Your task to perform on an android device: change timer sound Image 0: 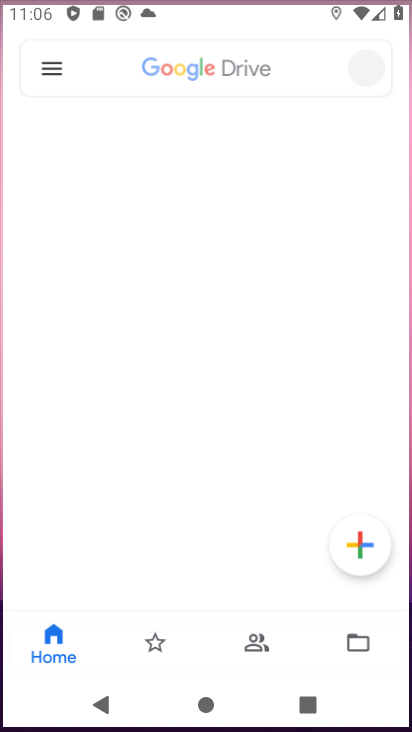
Step 0: drag from (204, 611) to (262, 28)
Your task to perform on an android device: change timer sound Image 1: 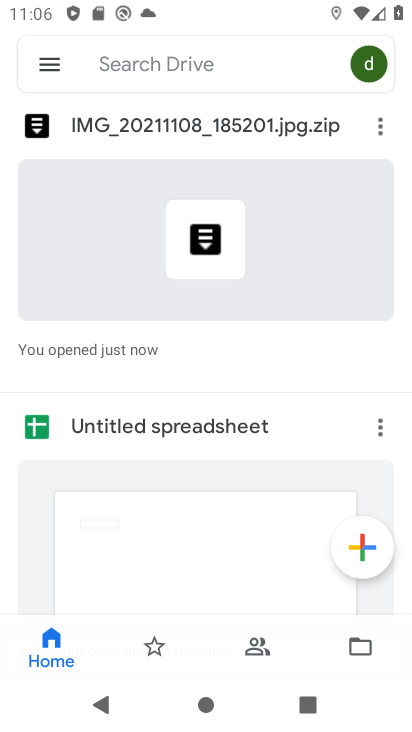
Step 1: press home button
Your task to perform on an android device: change timer sound Image 2: 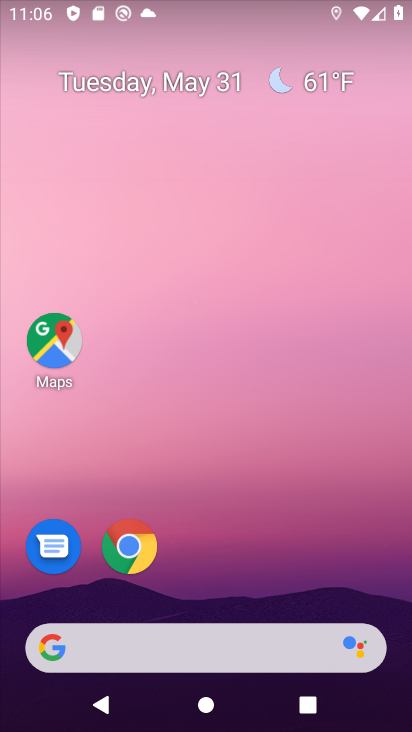
Step 2: drag from (197, 619) to (206, 0)
Your task to perform on an android device: change timer sound Image 3: 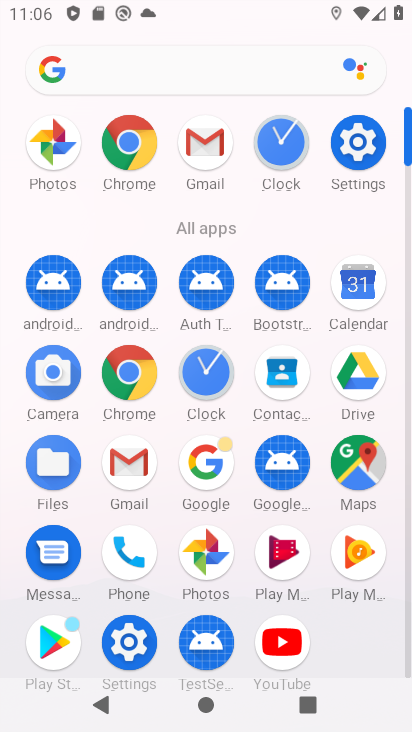
Step 3: click (209, 375)
Your task to perform on an android device: change timer sound Image 4: 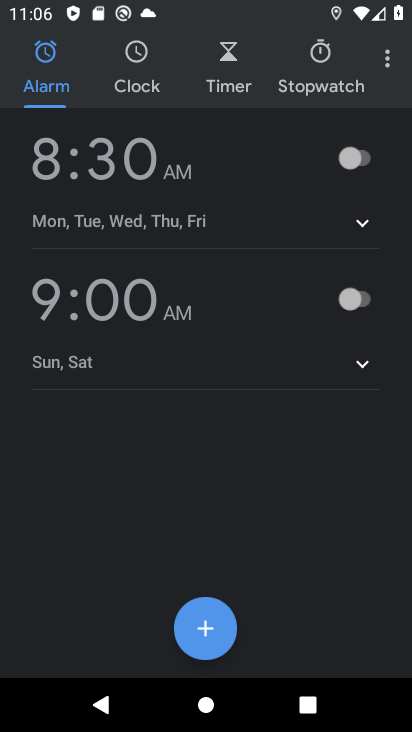
Step 4: click (391, 63)
Your task to perform on an android device: change timer sound Image 5: 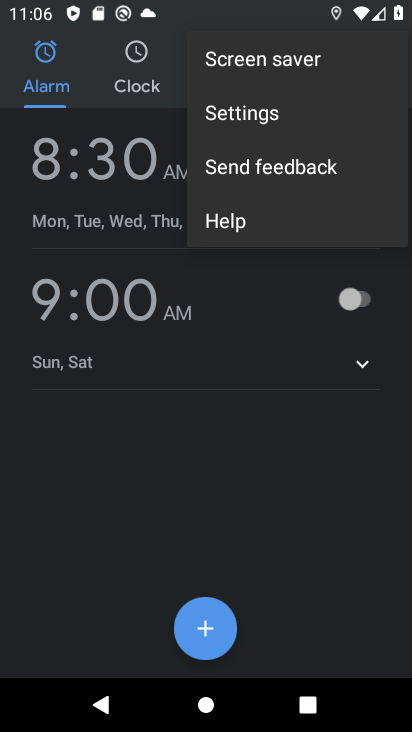
Step 5: click (273, 124)
Your task to perform on an android device: change timer sound Image 6: 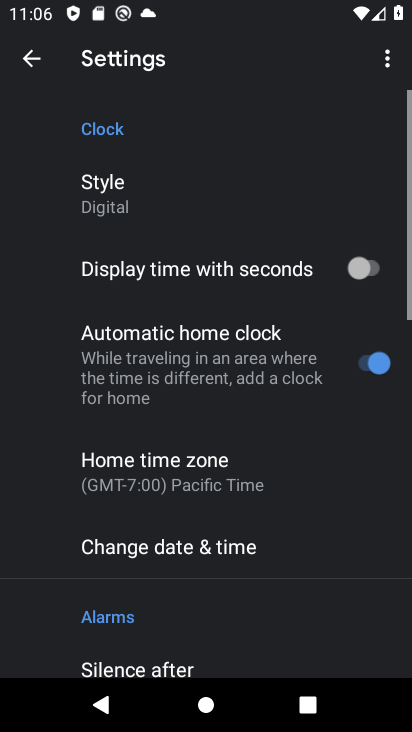
Step 6: drag from (143, 591) to (164, 174)
Your task to perform on an android device: change timer sound Image 7: 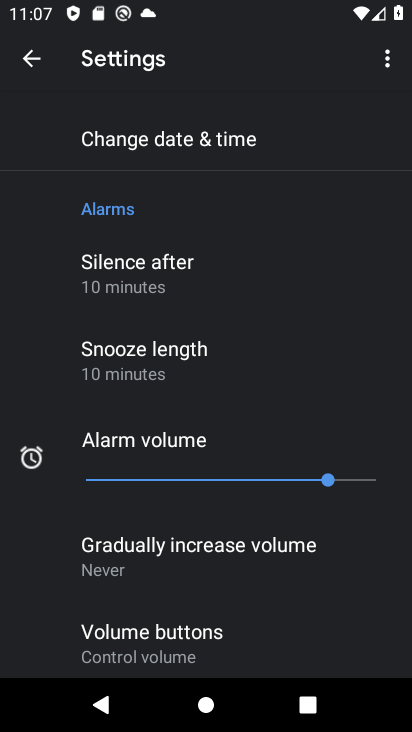
Step 7: drag from (208, 566) to (200, 187)
Your task to perform on an android device: change timer sound Image 8: 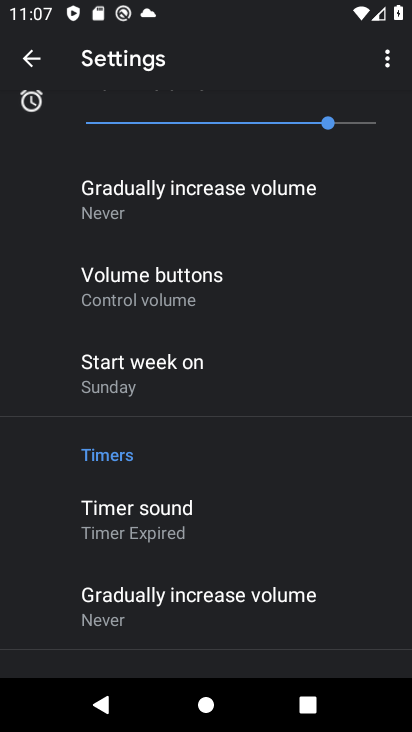
Step 8: click (137, 522)
Your task to perform on an android device: change timer sound Image 9: 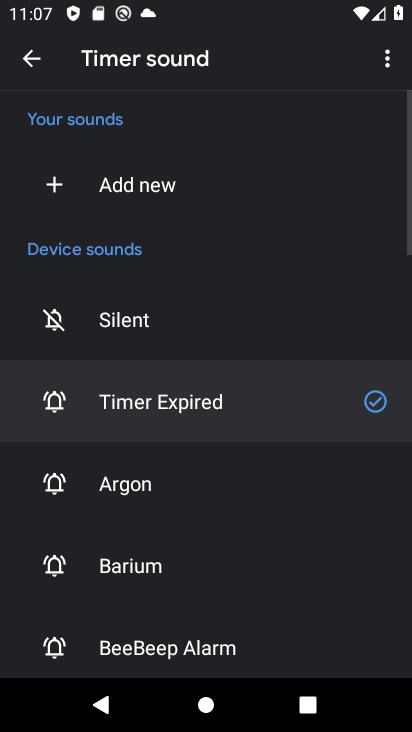
Step 9: click (153, 510)
Your task to perform on an android device: change timer sound Image 10: 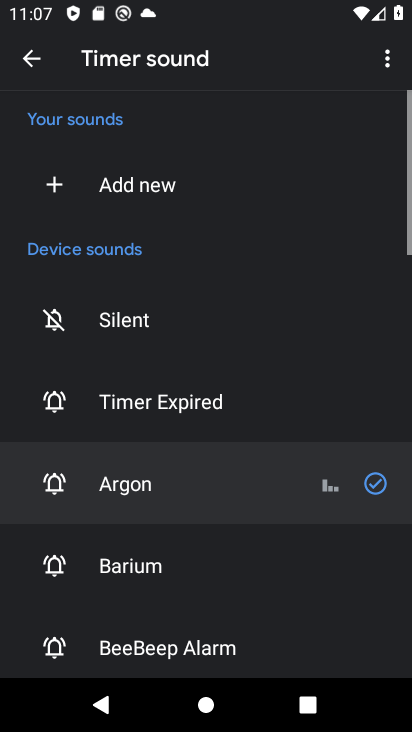
Step 10: task complete